Your task to perform on an android device: Open the calendar and show me this week's events? Image 0: 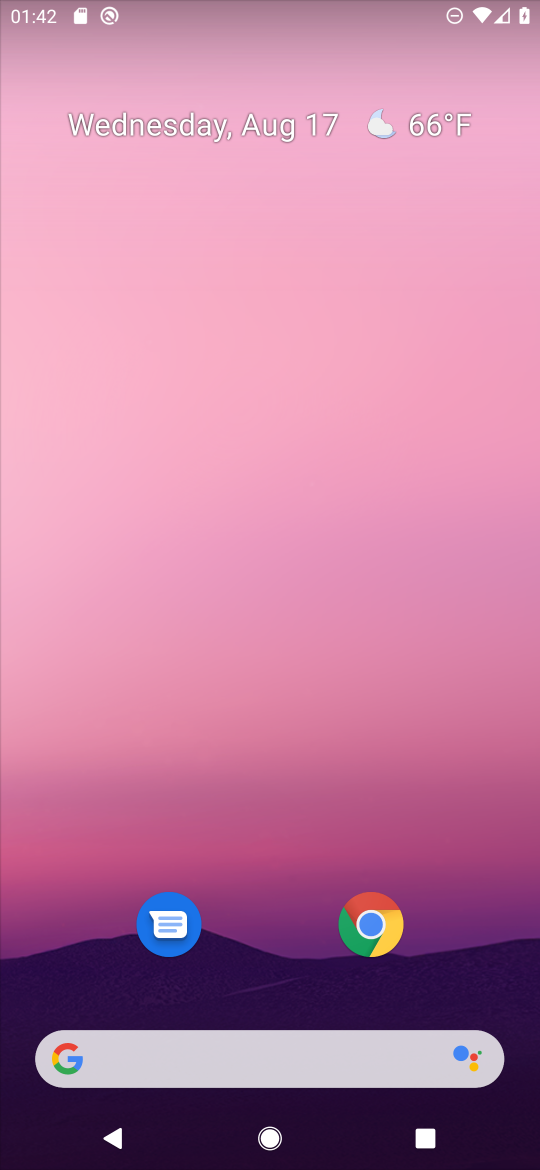
Step 0: click (313, 115)
Your task to perform on an android device: Open the calendar and show me this week's events? Image 1: 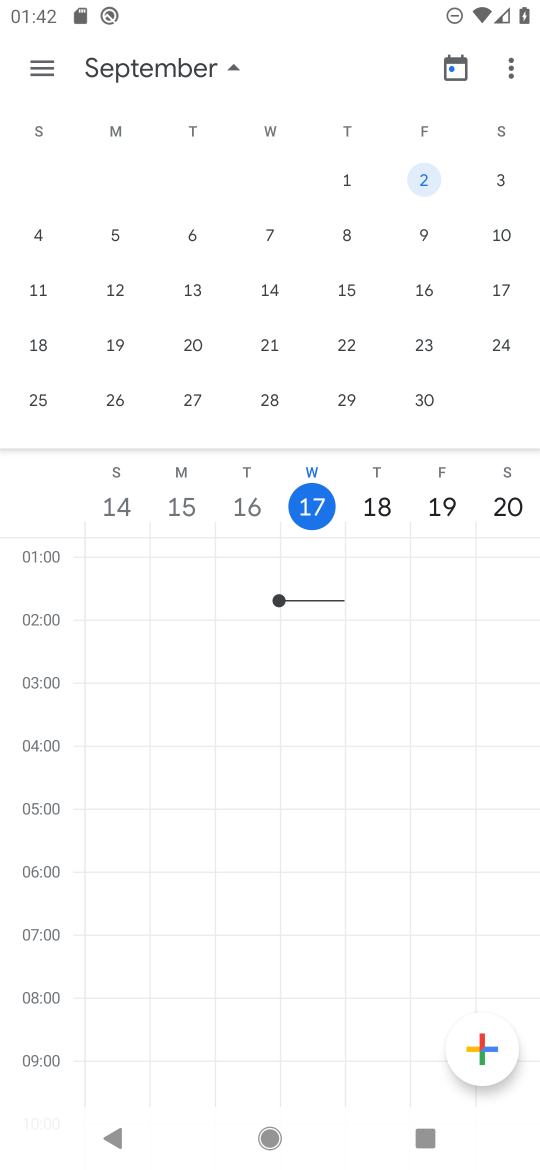
Step 1: drag from (52, 188) to (537, 229)
Your task to perform on an android device: Open the calendar and show me this week's events? Image 2: 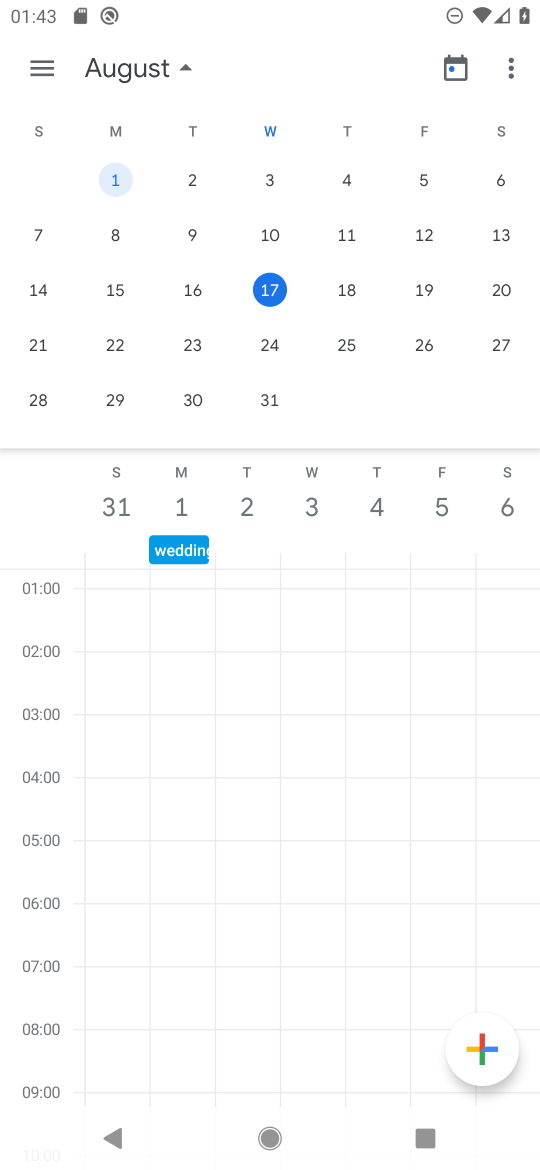
Step 2: click (339, 343)
Your task to perform on an android device: Open the calendar and show me this week's events? Image 3: 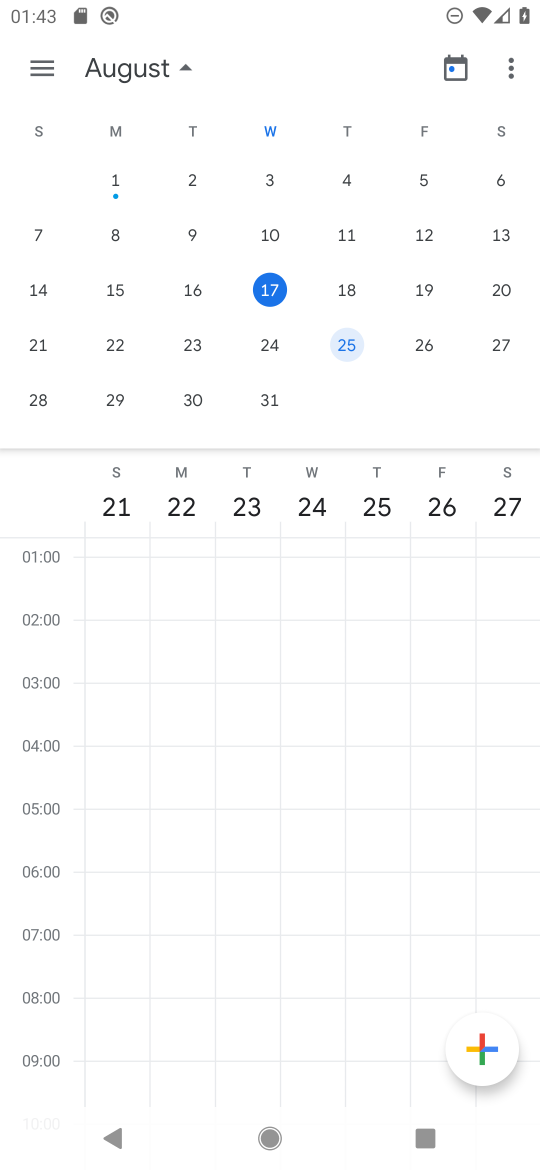
Step 3: task complete